Your task to perform on an android device: change notifications settings Image 0: 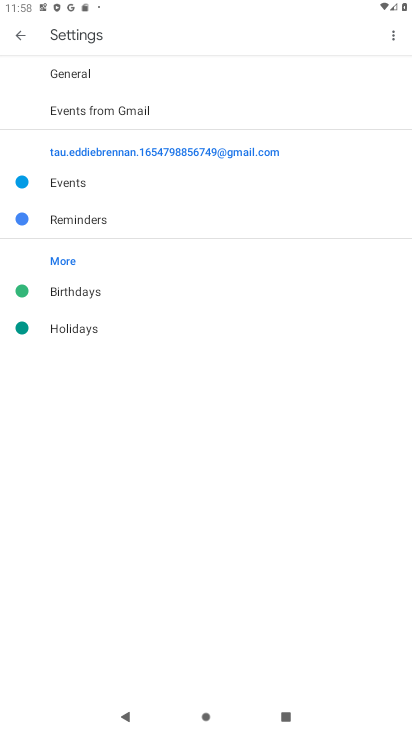
Step 0: press home button
Your task to perform on an android device: change notifications settings Image 1: 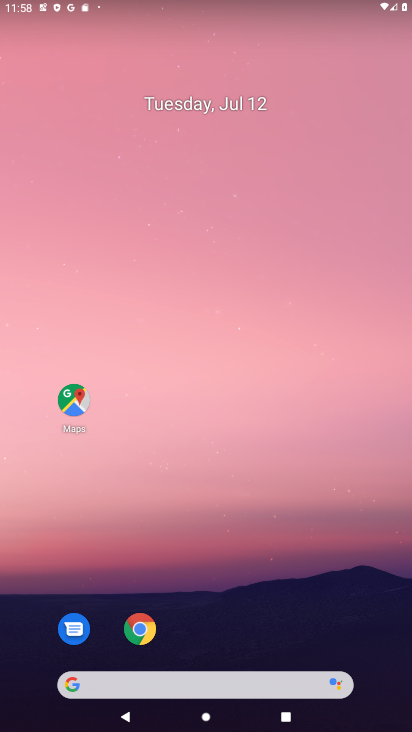
Step 1: drag from (296, 557) to (271, 39)
Your task to perform on an android device: change notifications settings Image 2: 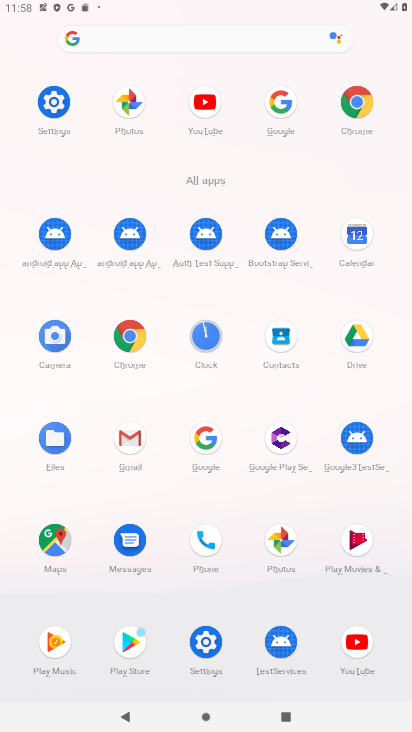
Step 2: click (52, 99)
Your task to perform on an android device: change notifications settings Image 3: 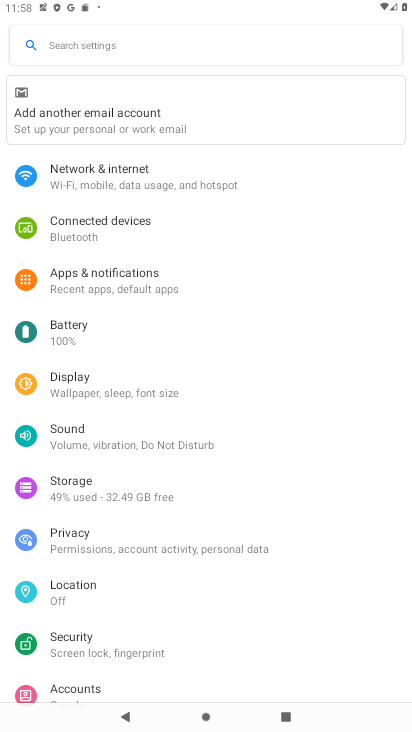
Step 3: click (152, 286)
Your task to perform on an android device: change notifications settings Image 4: 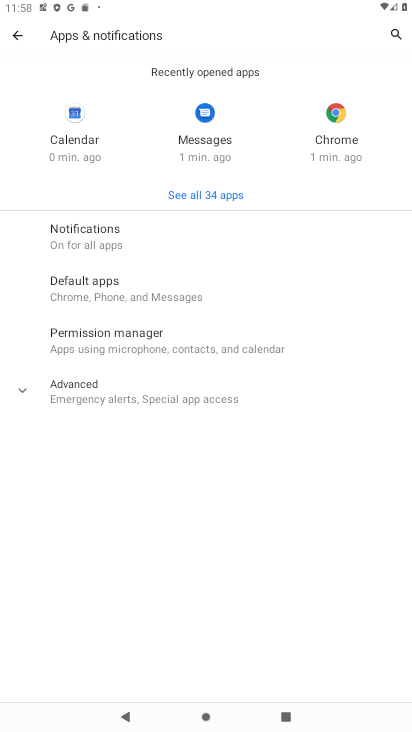
Step 4: click (108, 239)
Your task to perform on an android device: change notifications settings Image 5: 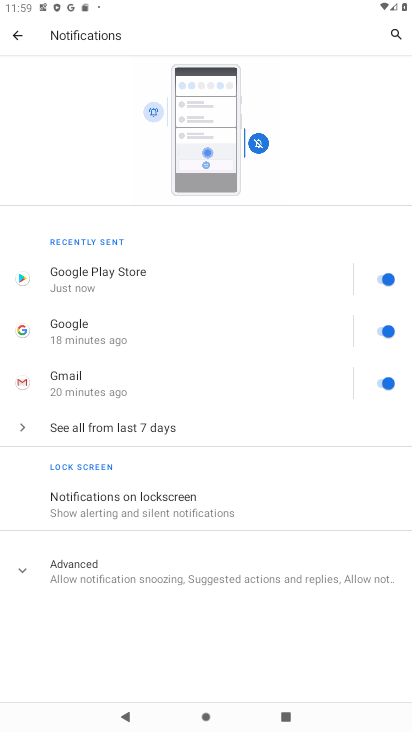
Step 5: click (257, 562)
Your task to perform on an android device: change notifications settings Image 6: 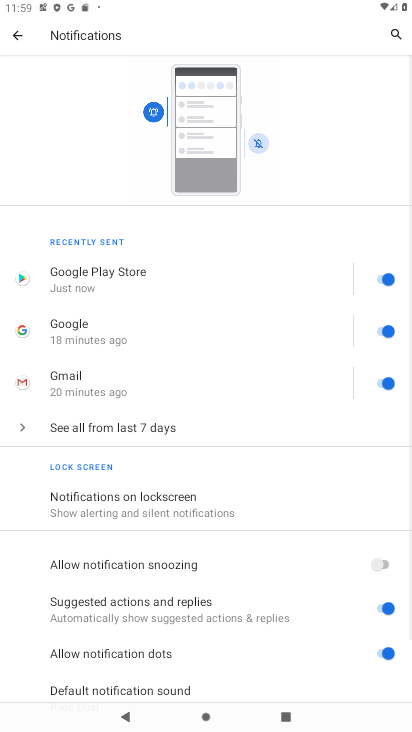
Step 6: click (377, 566)
Your task to perform on an android device: change notifications settings Image 7: 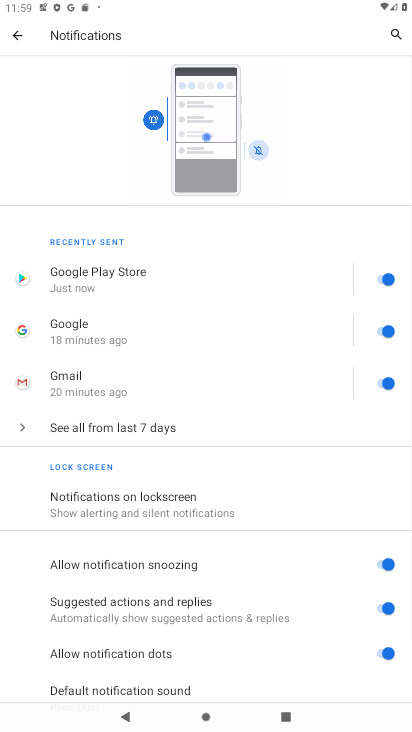
Step 7: task complete